Your task to perform on an android device: Open accessibility settings Image 0: 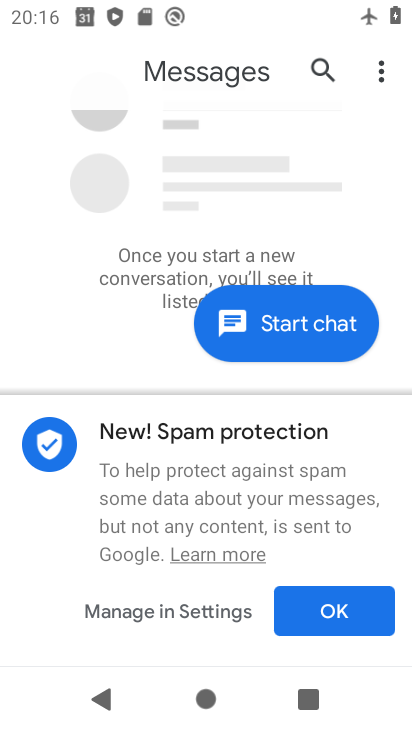
Step 0: press home button
Your task to perform on an android device: Open accessibility settings Image 1: 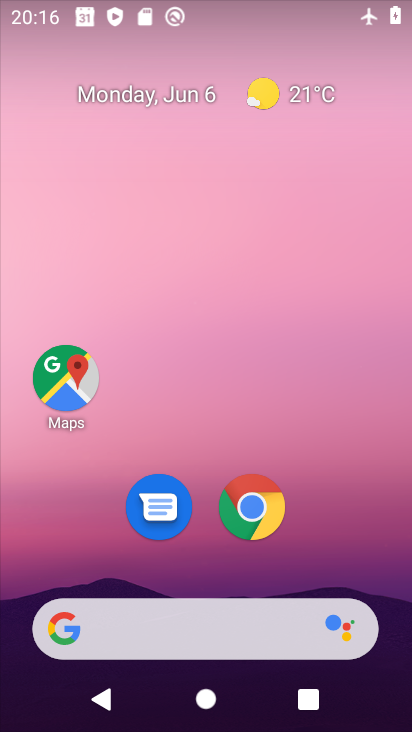
Step 1: drag from (195, 565) to (174, 45)
Your task to perform on an android device: Open accessibility settings Image 2: 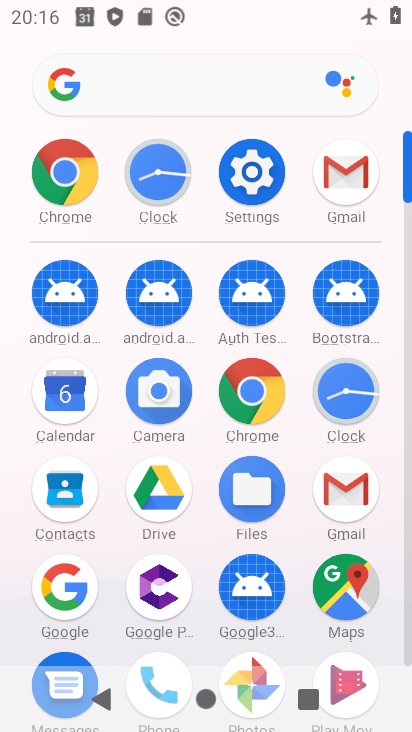
Step 2: click (242, 193)
Your task to perform on an android device: Open accessibility settings Image 3: 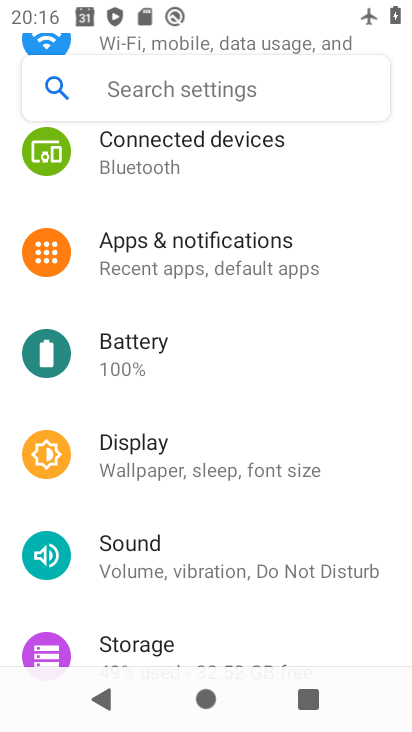
Step 3: drag from (251, 646) to (233, 310)
Your task to perform on an android device: Open accessibility settings Image 4: 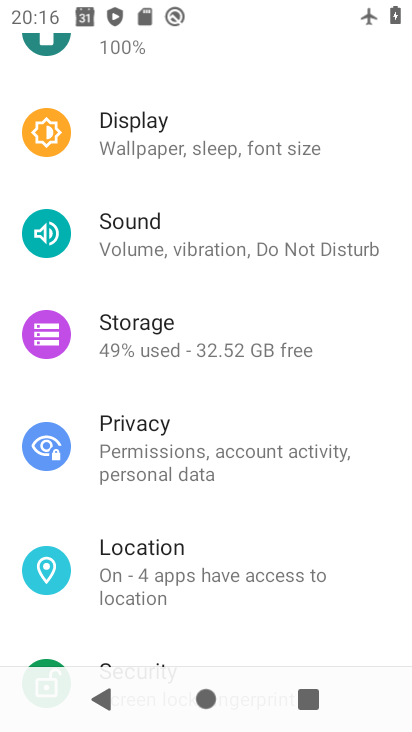
Step 4: drag from (213, 560) to (245, 217)
Your task to perform on an android device: Open accessibility settings Image 5: 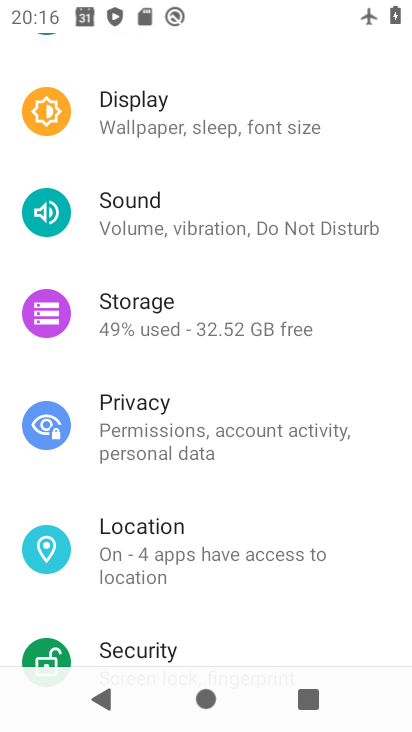
Step 5: drag from (205, 592) to (224, 56)
Your task to perform on an android device: Open accessibility settings Image 6: 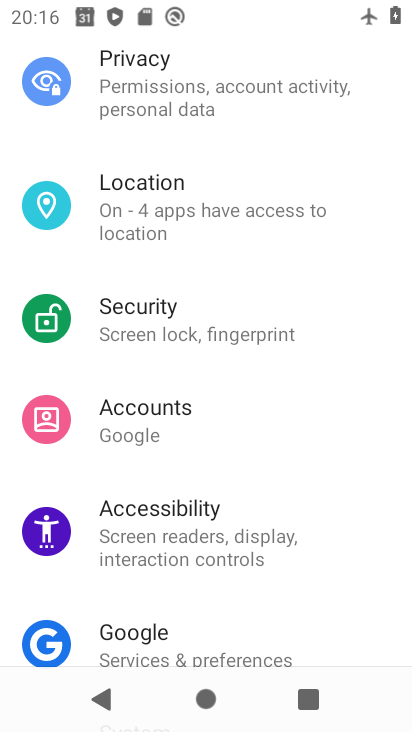
Step 6: click (184, 573)
Your task to perform on an android device: Open accessibility settings Image 7: 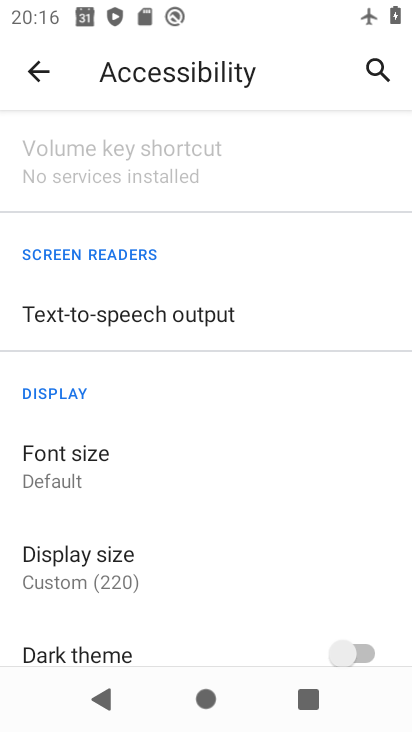
Step 7: task complete